Your task to perform on an android device: search for starred emails in the gmail app Image 0: 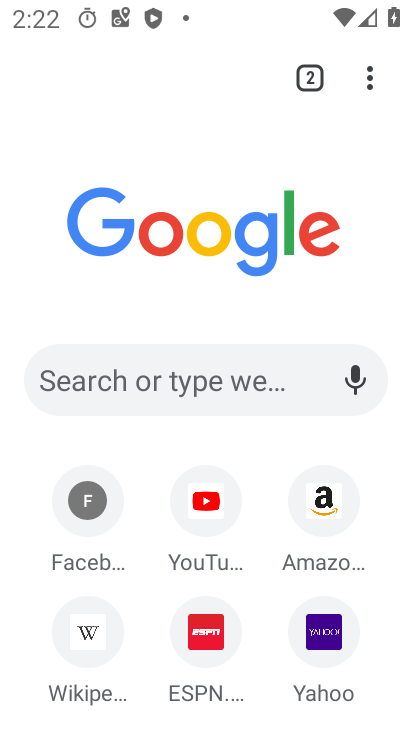
Step 0: press home button
Your task to perform on an android device: search for starred emails in the gmail app Image 1: 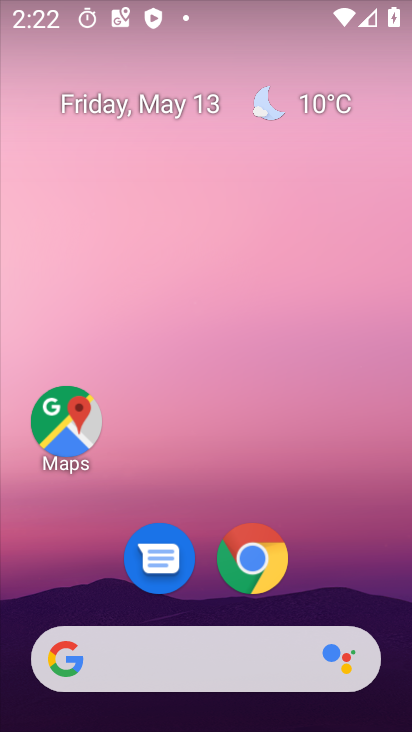
Step 1: drag from (201, 601) to (183, 248)
Your task to perform on an android device: search for starred emails in the gmail app Image 2: 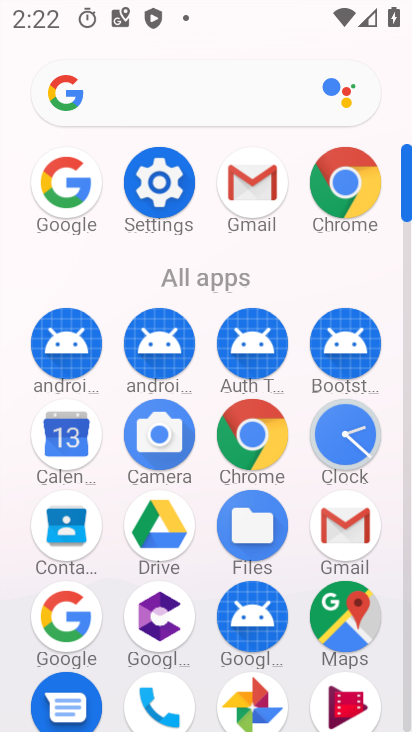
Step 2: click (351, 519)
Your task to perform on an android device: search for starred emails in the gmail app Image 3: 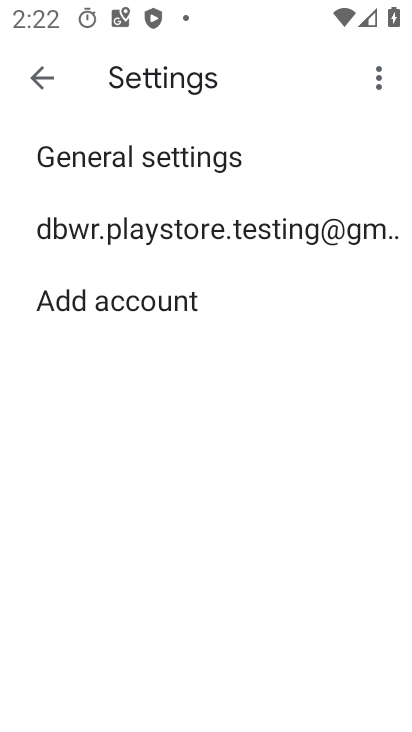
Step 3: click (30, 78)
Your task to perform on an android device: search for starred emails in the gmail app Image 4: 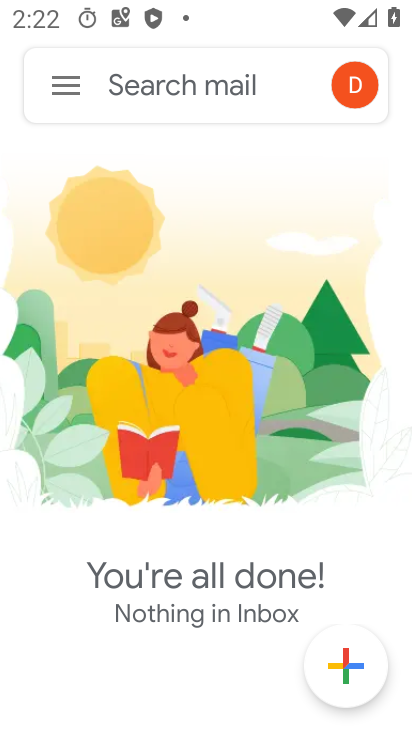
Step 4: click (64, 66)
Your task to perform on an android device: search for starred emails in the gmail app Image 5: 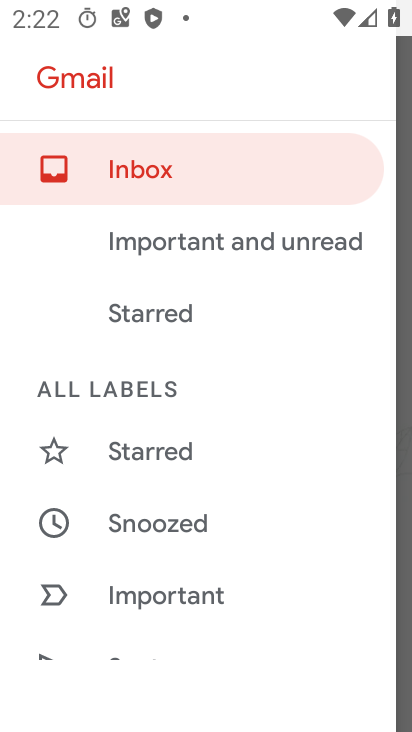
Step 5: click (186, 451)
Your task to perform on an android device: search for starred emails in the gmail app Image 6: 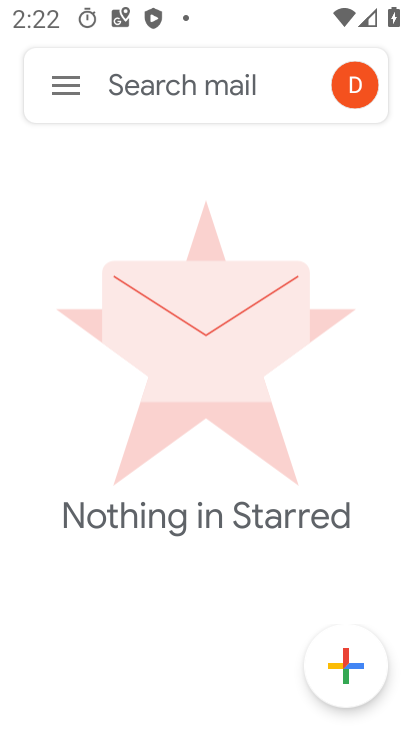
Step 6: task complete